Your task to perform on an android device: Open Google Maps and go to "Timeline" Image 0: 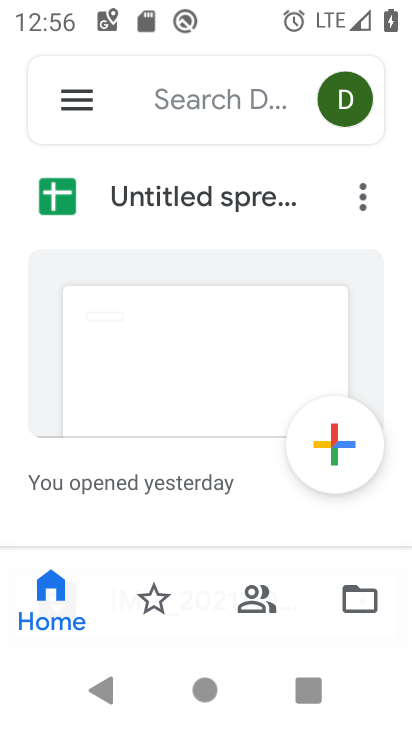
Step 0: press home button
Your task to perform on an android device: Open Google Maps and go to "Timeline" Image 1: 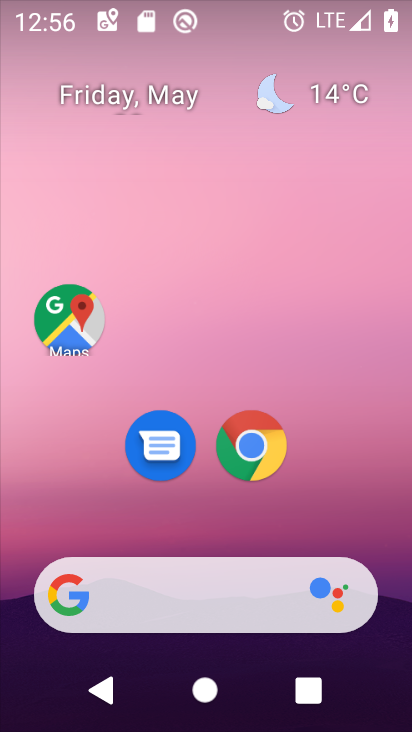
Step 1: click (80, 314)
Your task to perform on an android device: Open Google Maps and go to "Timeline" Image 2: 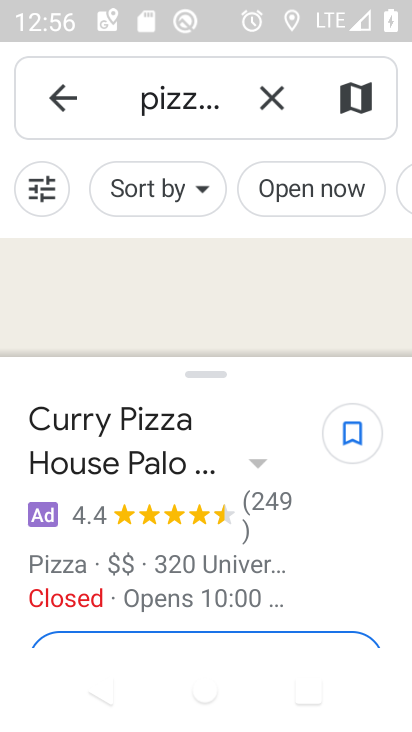
Step 2: click (272, 97)
Your task to perform on an android device: Open Google Maps and go to "Timeline" Image 3: 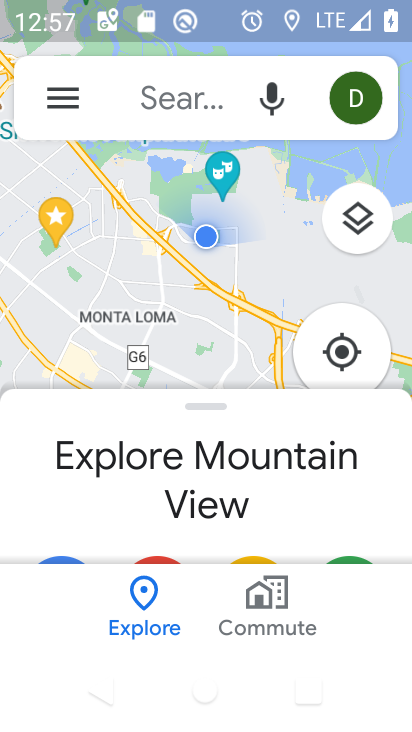
Step 3: click (61, 93)
Your task to perform on an android device: Open Google Maps and go to "Timeline" Image 4: 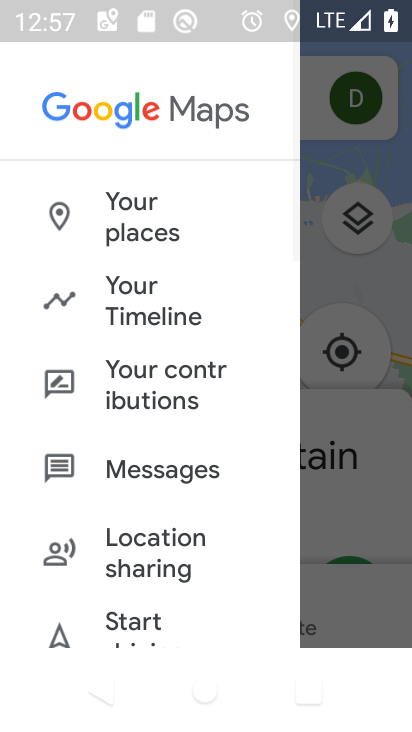
Step 4: click (176, 316)
Your task to perform on an android device: Open Google Maps and go to "Timeline" Image 5: 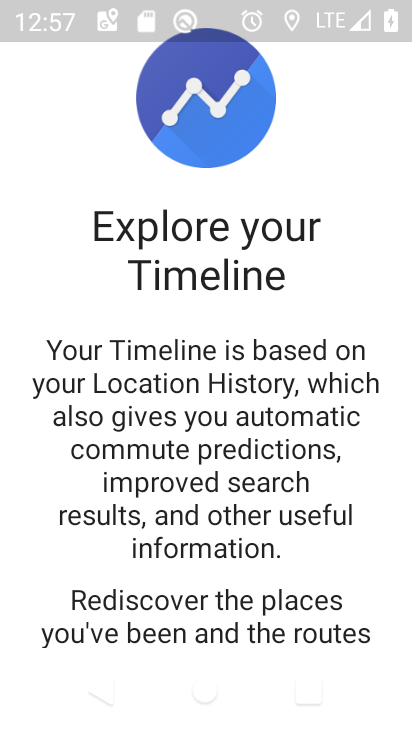
Step 5: task complete